Your task to perform on an android device: turn on location history Image 0: 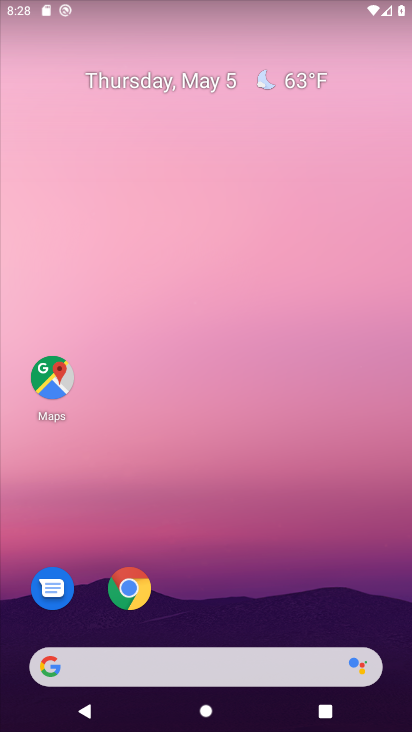
Step 0: drag from (219, 631) to (234, 58)
Your task to perform on an android device: turn on location history Image 1: 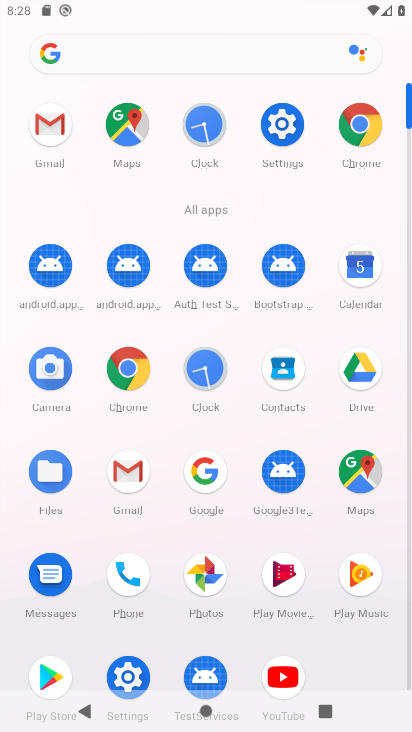
Step 1: click (279, 119)
Your task to perform on an android device: turn on location history Image 2: 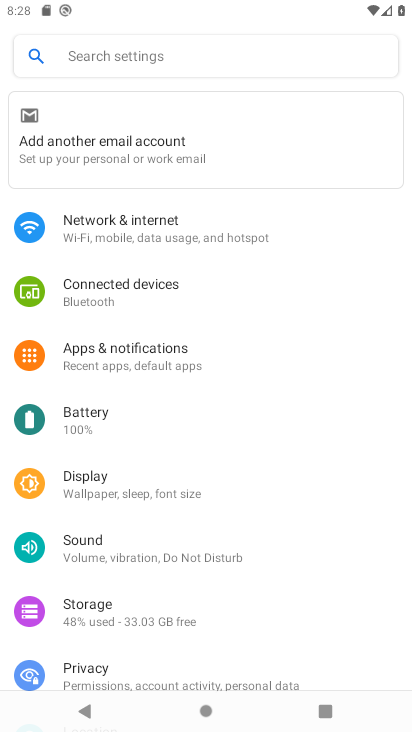
Step 2: drag from (148, 656) to (176, 266)
Your task to perform on an android device: turn on location history Image 3: 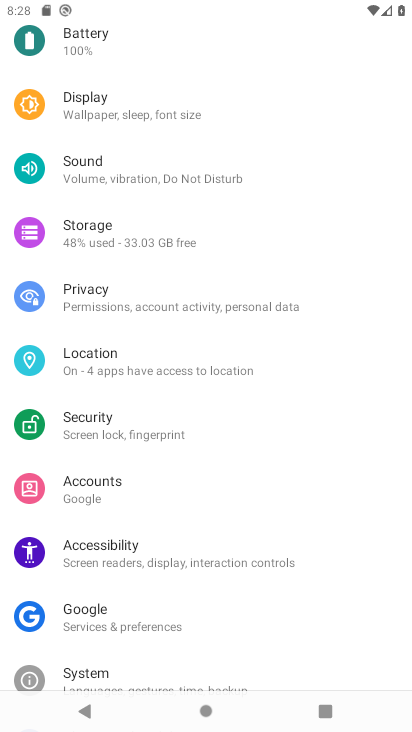
Step 3: click (131, 393)
Your task to perform on an android device: turn on location history Image 4: 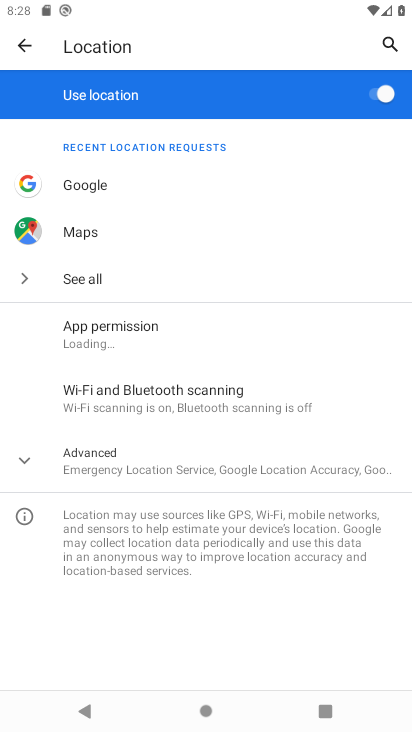
Step 4: click (28, 459)
Your task to perform on an android device: turn on location history Image 5: 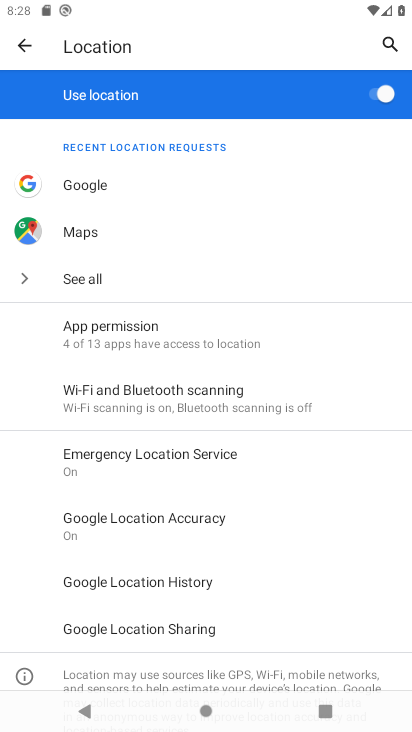
Step 5: click (227, 577)
Your task to perform on an android device: turn on location history Image 6: 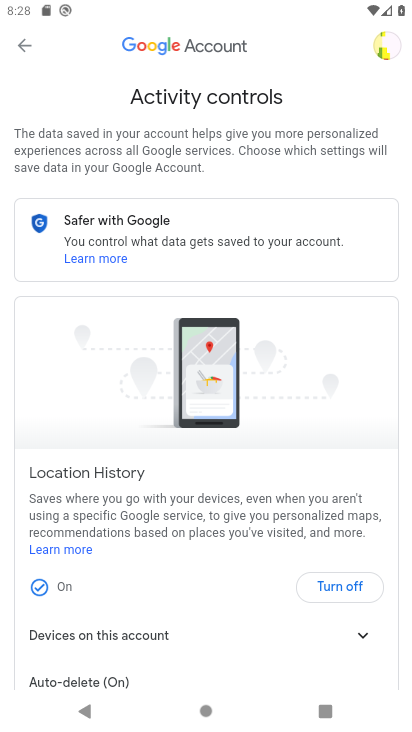
Step 6: task complete